Your task to perform on an android device: set default search engine in the chrome app Image 0: 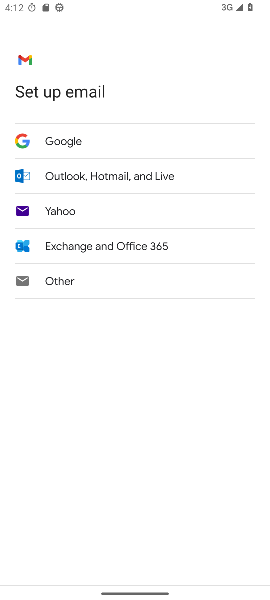
Step 0: press home button
Your task to perform on an android device: set default search engine in the chrome app Image 1: 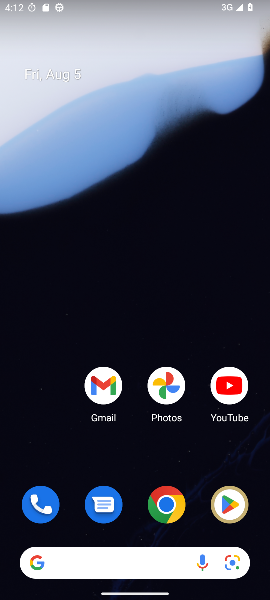
Step 1: click (176, 498)
Your task to perform on an android device: set default search engine in the chrome app Image 2: 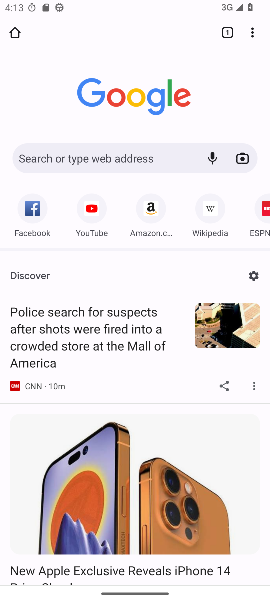
Step 2: click (253, 27)
Your task to perform on an android device: set default search engine in the chrome app Image 3: 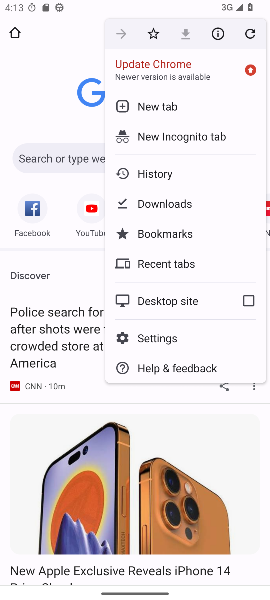
Step 3: click (151, 330)
Your task to perform on an android device: set default search engine in the chrome app Image 4: 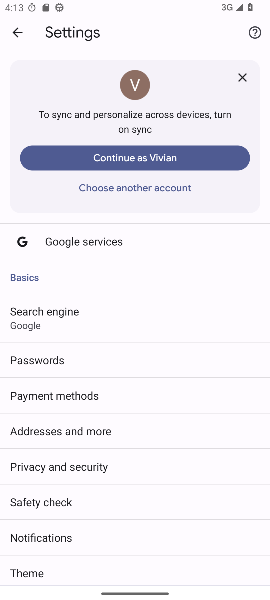
Step 4: click (107, 329)
Your task to perform on an android device: set default search engine in the chrome app Image 5: 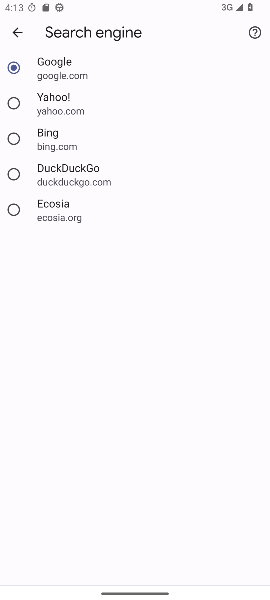
Step 5: task complete